Your task to perform on an android device: Show me the alarms in the clock app Image 0: 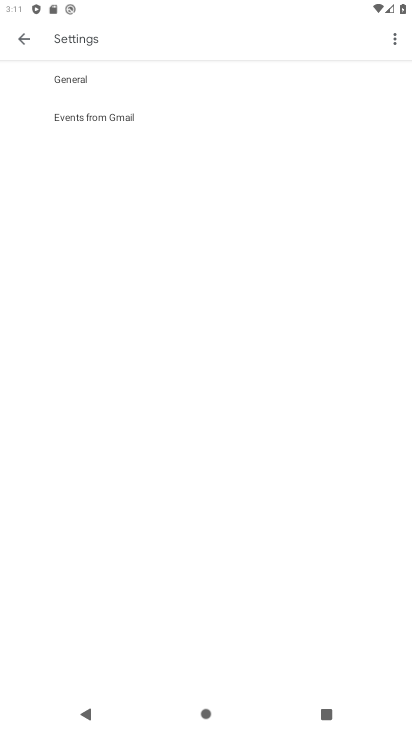
Step 0: press home button
Your task to perform on an android device: Show me the alarms in the clock app Image 1: 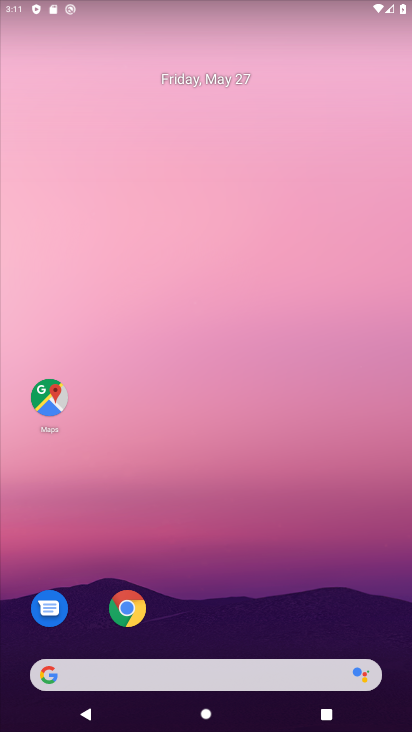
Step 1: drag from (162, 658) to (203, 255)
Your task to perform on an android device: Show me the alarms in the clock app Image 2: 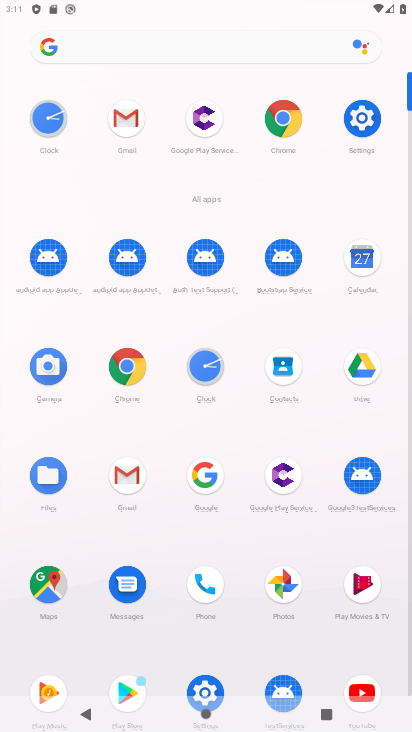
Step 2: click (202, 365)
Your task to perform on an android device: Show me the alarms in the clock app Image 3: 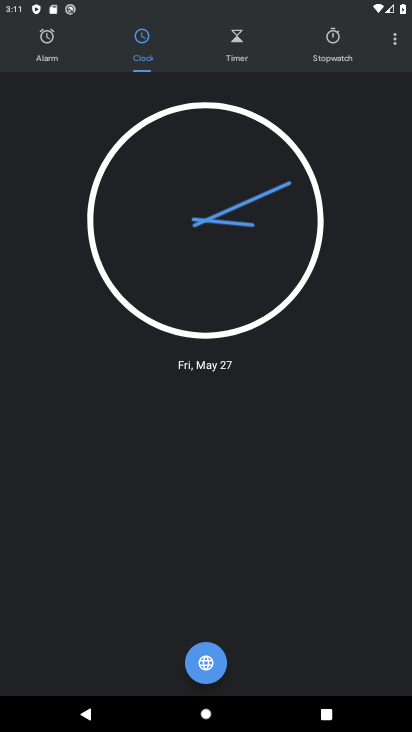
Step 3: click (39, 42)
Your task to perform on an android device: Show me the alarms in the clock app Image 4: 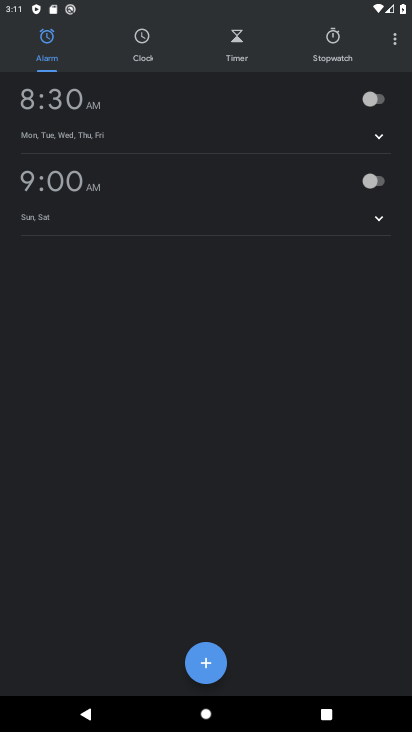
Step 4: task complete